Your task to perform on an android device: Open the calendar app, open the side menu, and click the "Day" option Image 0: 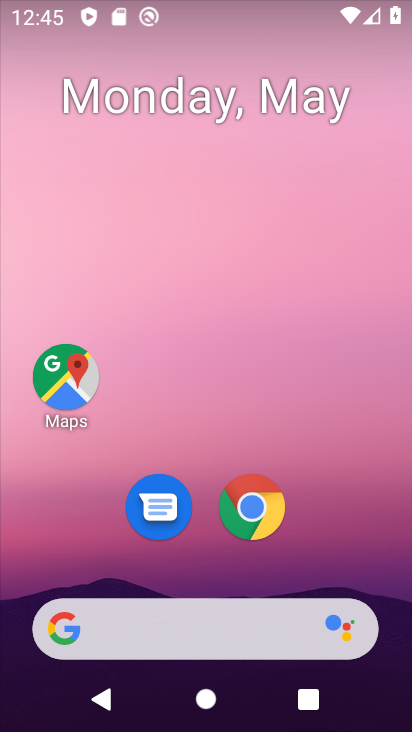
Step 0: drag from (244, 702) to (238, 45)
Your task to perform on an android device: Open the calendar app, open the side menu, and click the "Day" option Image 1: 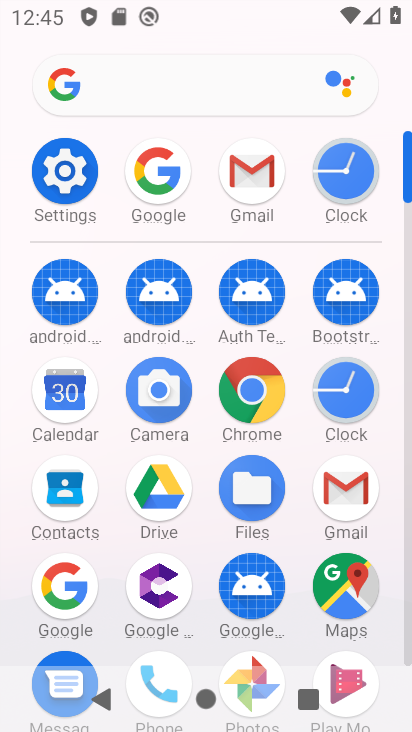
Step 1: click (68, 391)
Your task to perform on an android device: Open the calendar app, open the side menu, and click the "Day" option Image 2: 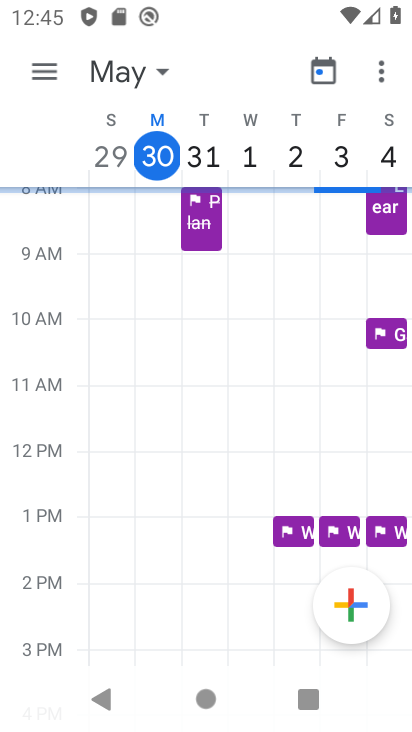
Step 2: click (50, 70)
Your task to perform on an android device: Open the calendar app, open the side menu, and click the "Day" option Image 3: 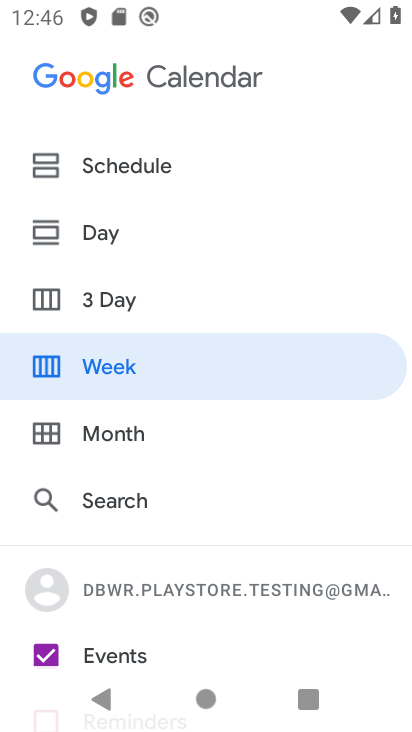
Step 3: click (100, 236)
Your task to perform on an android device: Open the calendar app, open the side menu, and click the "Day" option Image 4: 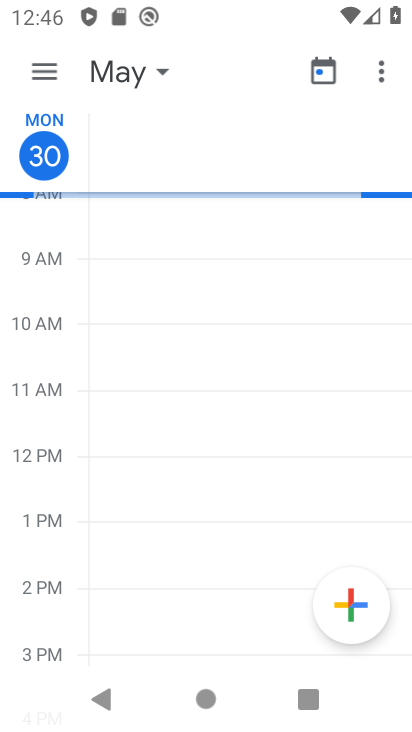
Step 4: task complete